Your task to perform on an android device: manage bookmarks in the chrome app Image 0: 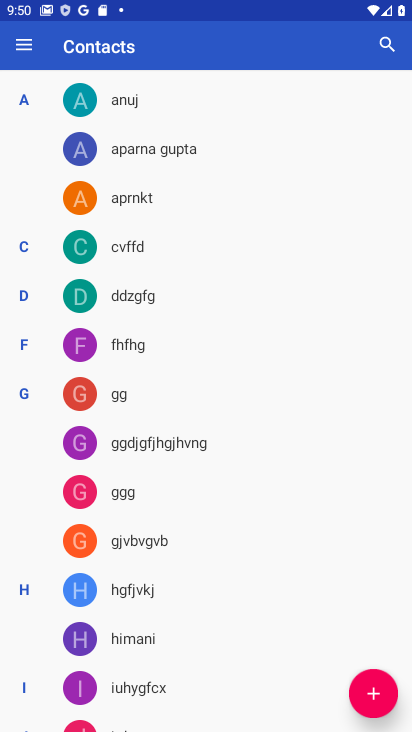
Step 0: drag from (215, 605) to (378, 334)
Your task to perform on an android device: manage bookmarks in the chrome app Image 1: 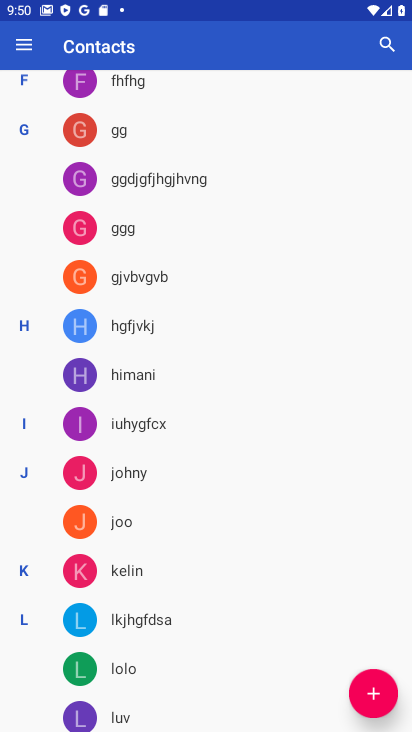
Step 1: press home button
Your task to perform on an android device: manage bookmarks in the chrome app Image 2: 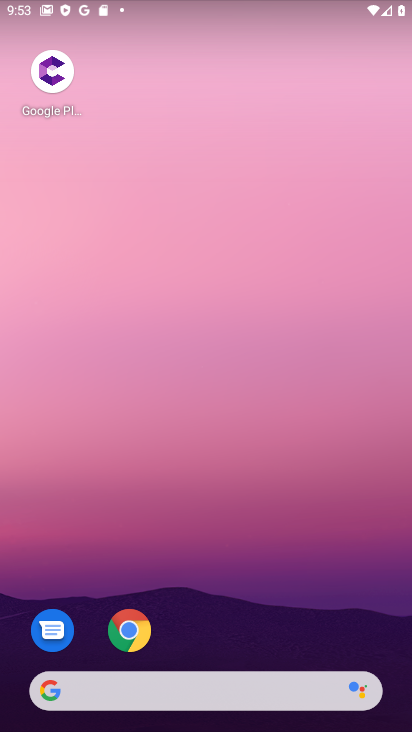
Step 2: click (131, 636)
Your task to perform on an android device: manage bookmarks in the chrome app Image 3: 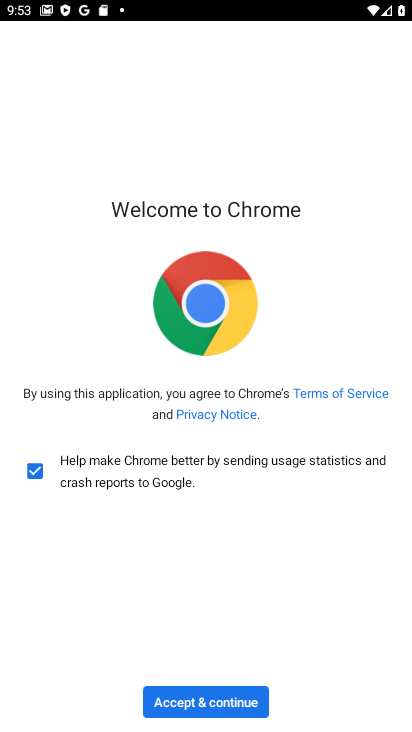
Step 3: click (255, 706)
Your task to perform on an android device: manage bookmarks in the chrome app Image 4: 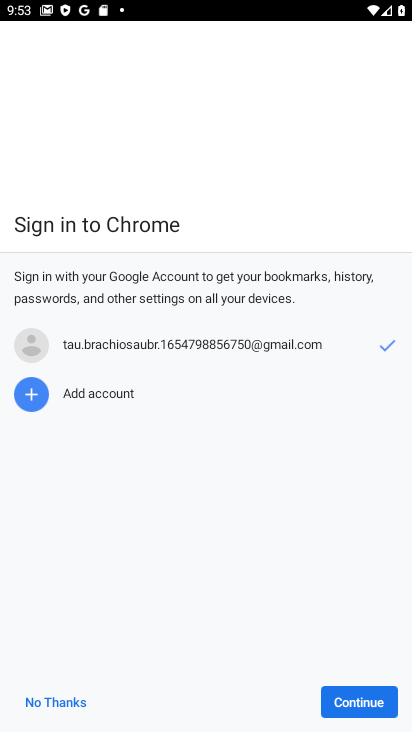
Step 4: click (336, 699)
Your task to perform on an android device: manage bookmarks in the chrome app Image 5: 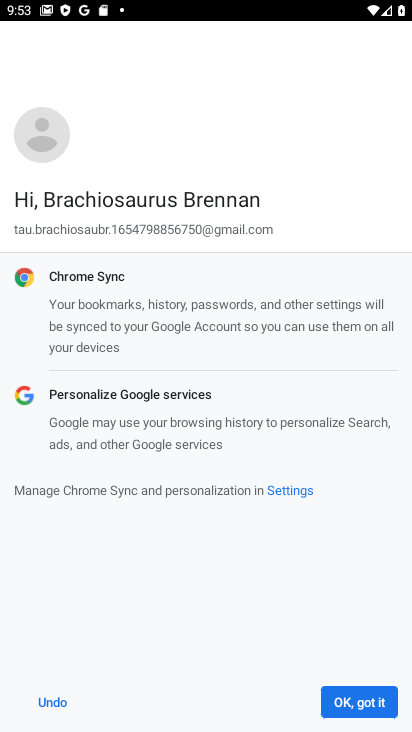
Step 5: click (350, 707)
Your task to perform on an android device: manage bookmarks in the chrome app Image 6: 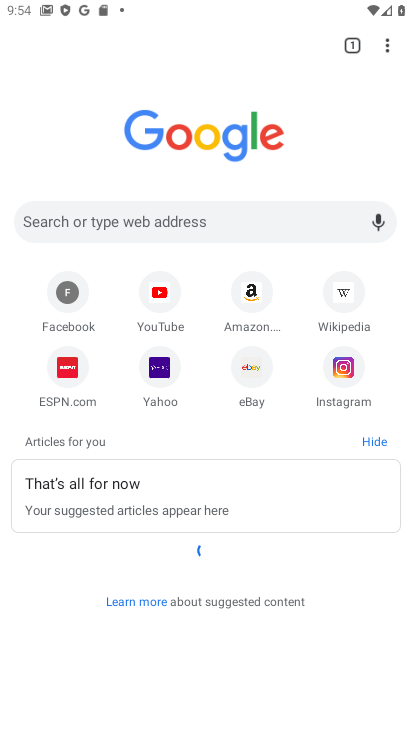
Step 6: click (390, 38)
Your task to perform on an android device: manage bookmarks in the chrome app Image 7: 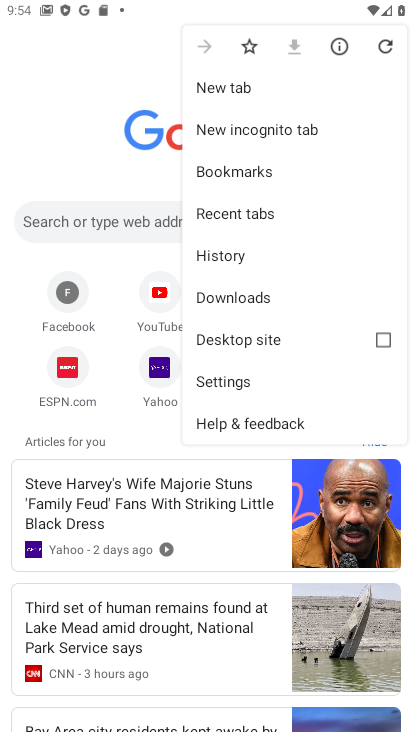
Step 7: click (260, 171)
Your task to perform on an android device: manage bookmarks in the chrome app Image 8: 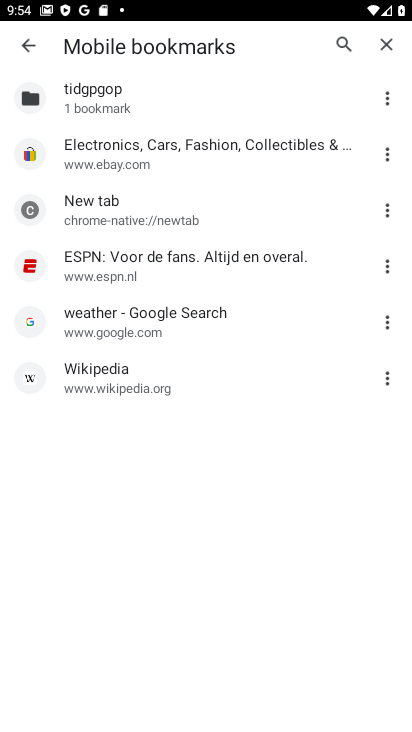
Step 8: click (386, 156)
Your task to perform on an android device: manage bookmarks in the chrome app Image 9: 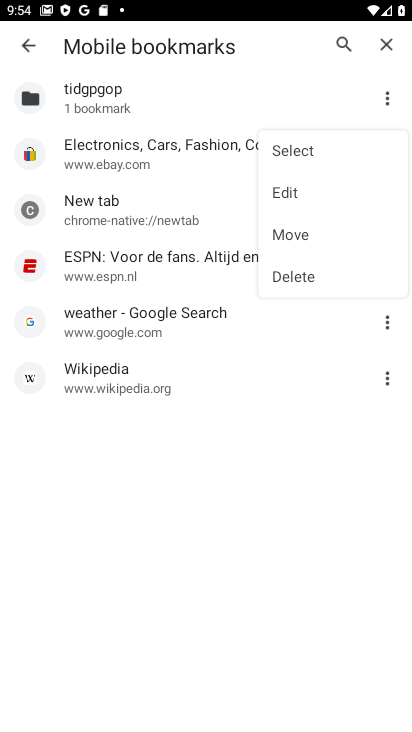
Step 9: click (301, 276)
Your task to perform on an android device: manage bookmarks in the chrome app Image 10: 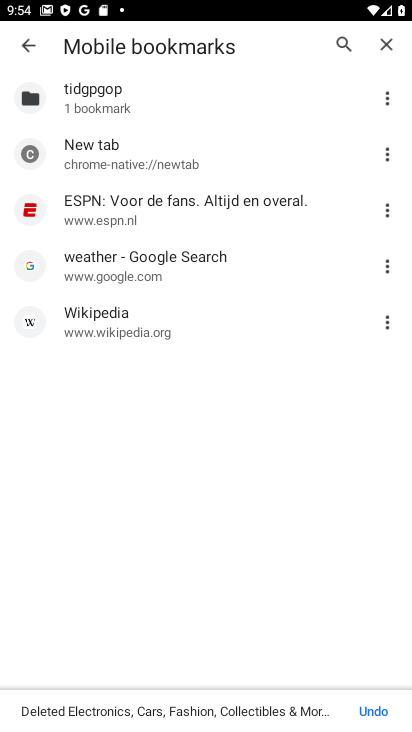
Step 10: task complete